Your task to perform on an android device: toggle show notifications on the lock screen Image 0: 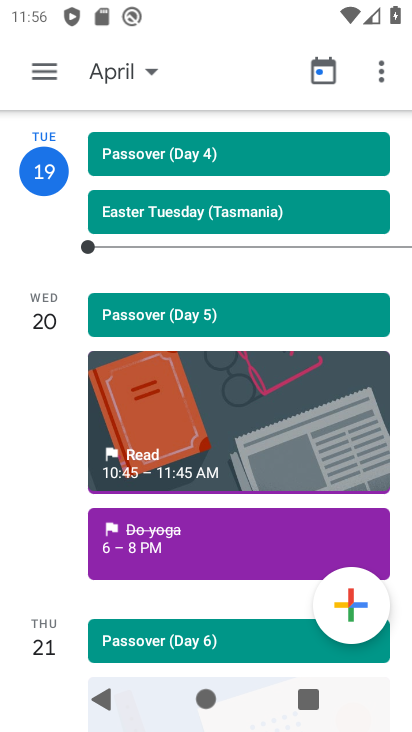
Step 0: press home button
Your task to perform on an android device: toggle show notifications on the lock screen Image 1: 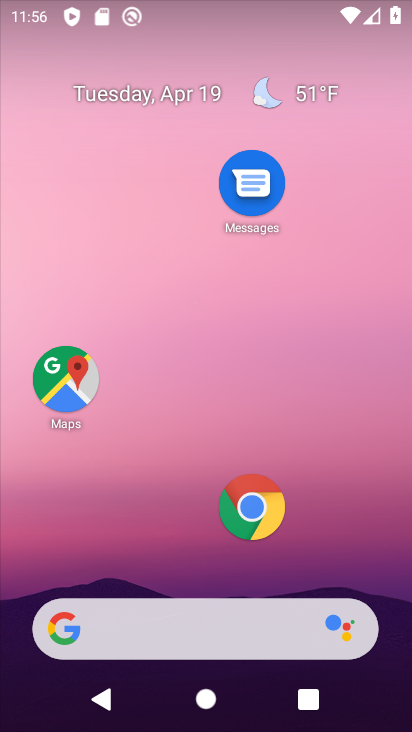
Step 1: drag from (173, 544) to (248, 34)
Your task to perform on an android device: toggle show notifications on the lock screen Image 2: 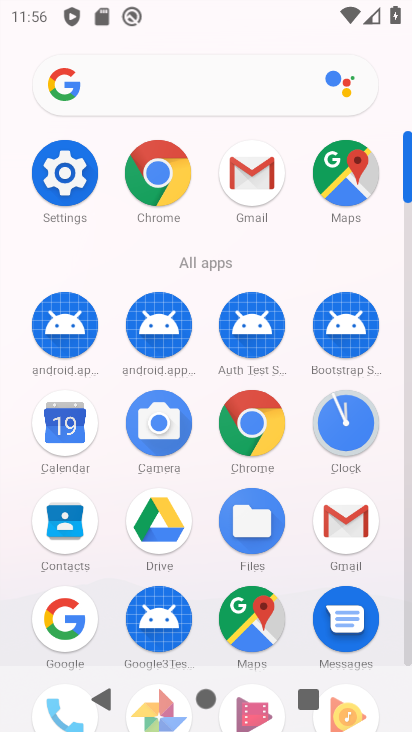
Step 2: click (67, 175)
Your task to perform on an android device: toggle show notifications on the lock screen Image 3: 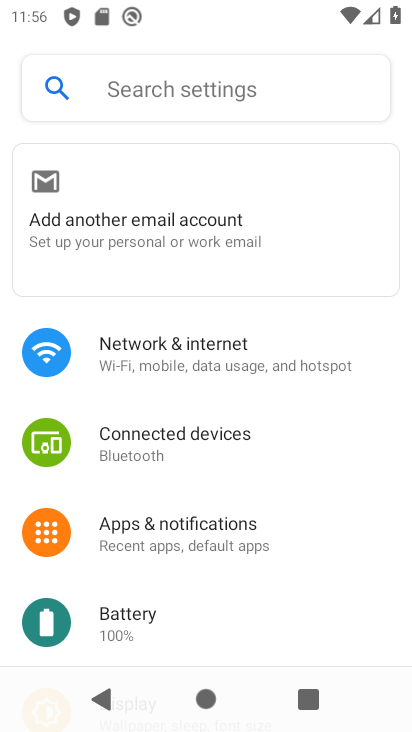
Step 3: click (170, 524)
Your task to perform on an android device: toggle show notifications on the lock screen Image 4: 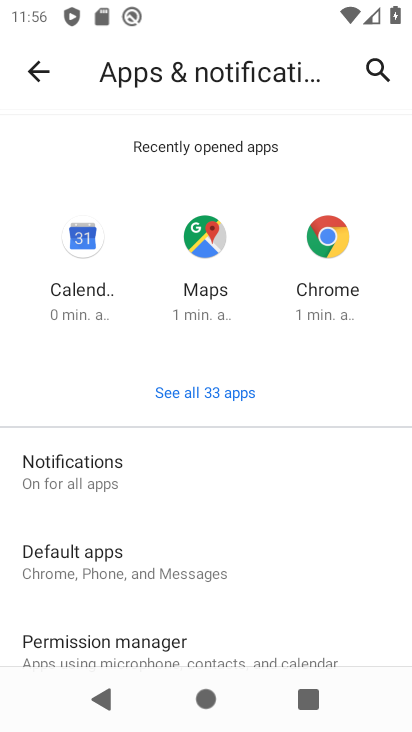
Step 4: click (91, 464)
Your task to perform on an android device: toggle show notifications on the lock screen Image 5: 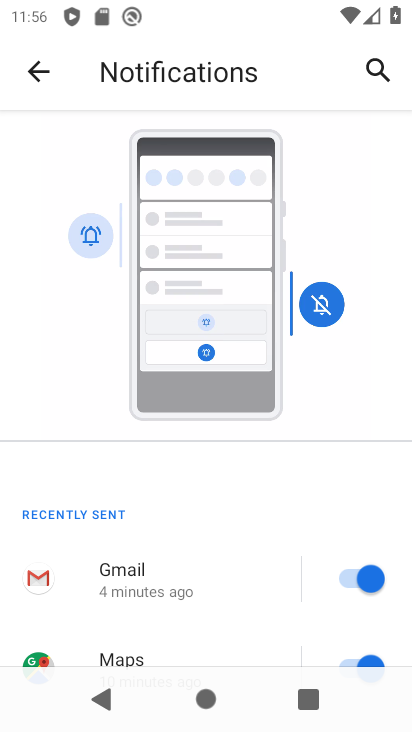
Step 5: drag from (216, 599) to (293, 457)
Your task to perform on an android device: toggle show notifications on the lock screen Image 6: 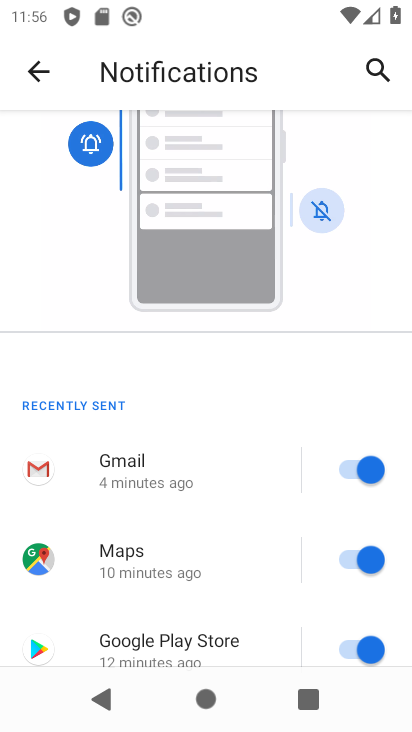
Step 6: drag from (229, 599) to (256, 445)
Your task to perform on an android device: toggle show notifications on the lock screen Image 7: 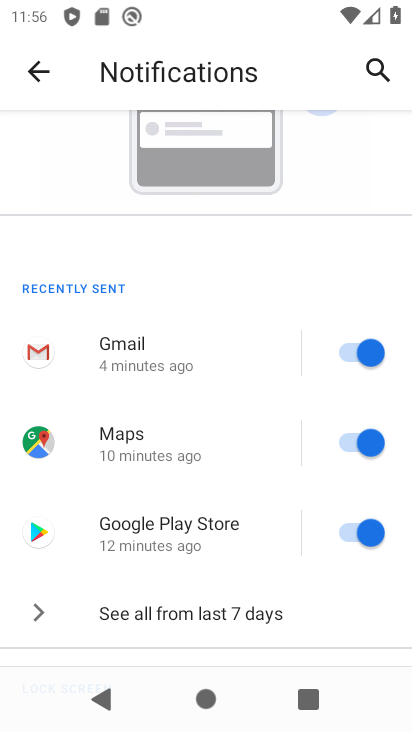
Step 7: drag from (176, 570) to (230, 425)
Your task to perform on an android device: toggle show notifications on the lock screen Image 8: 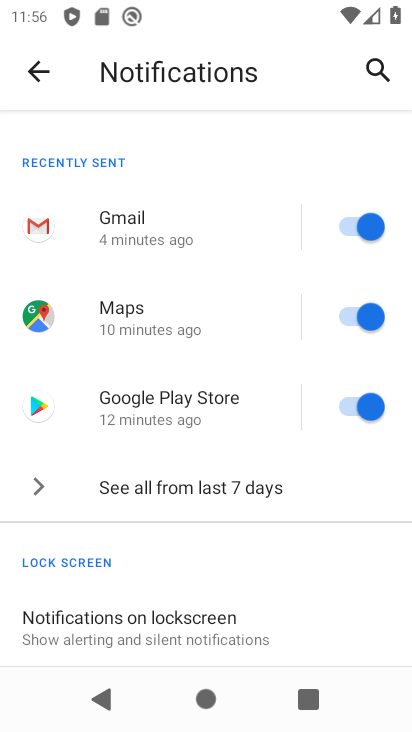
Step 8: drag from (186, 579) to (226, 421)
Your task to perform on an android device: toggle show notifications on the lock screen Image 9: 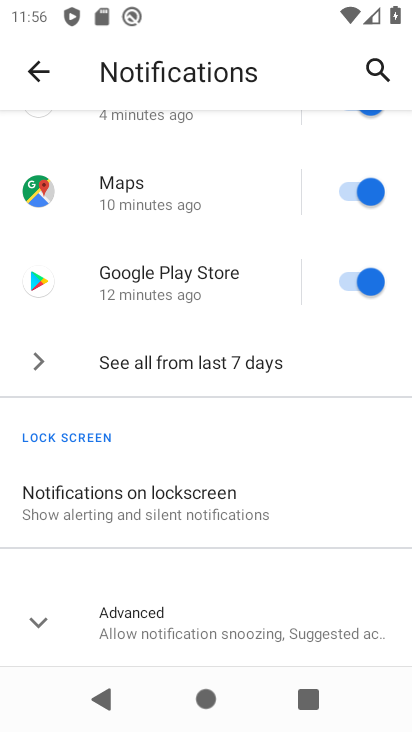
Step 9: click (163, 489)
Your task to perform on an android device: toggle show notifications on the lock screen Image 10: 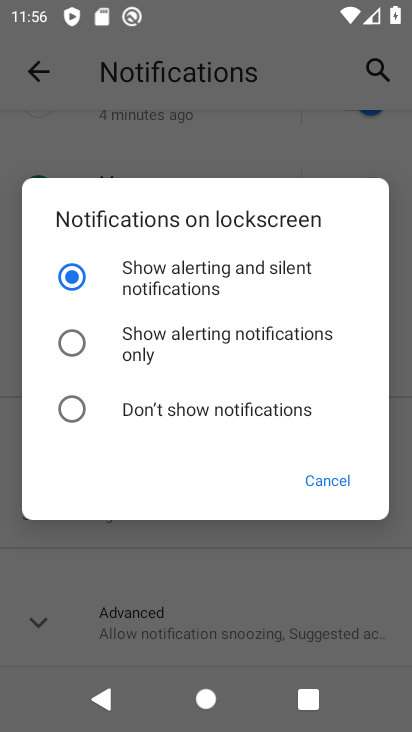
Step 10: click (77, 410)
Your task to perform on an android device: toggle show notifications on the lock screen Image 11: 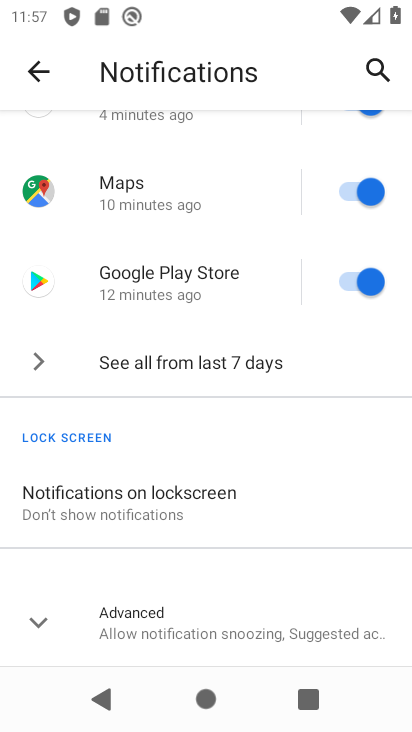
Step 11: task complete